Your task to perform on an android device: turn off airplane mode Image 0: 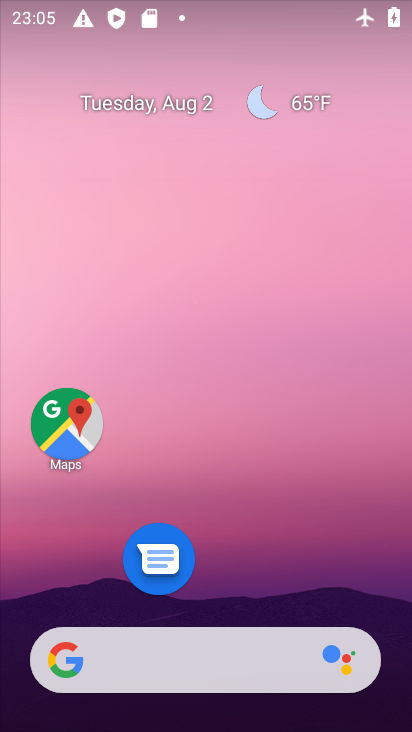
Step 0: drag from (204, 671) to (199, 326)
Your task to perform on an android device: turn off airplane mode Image 1: 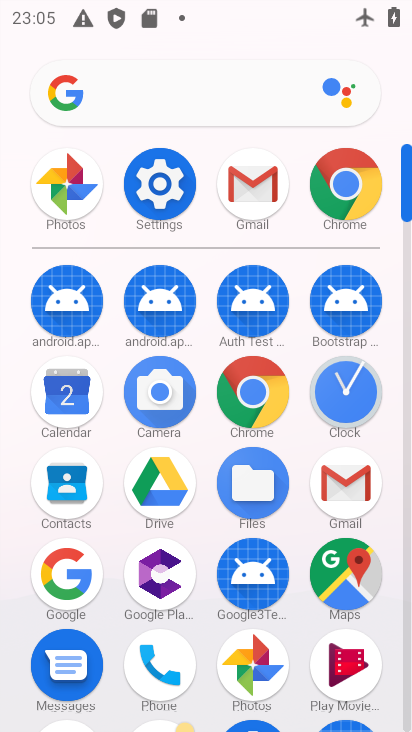
Step 1: click (171, 199)
Your task to perform on an android device: turn off airplane mode Image 2: 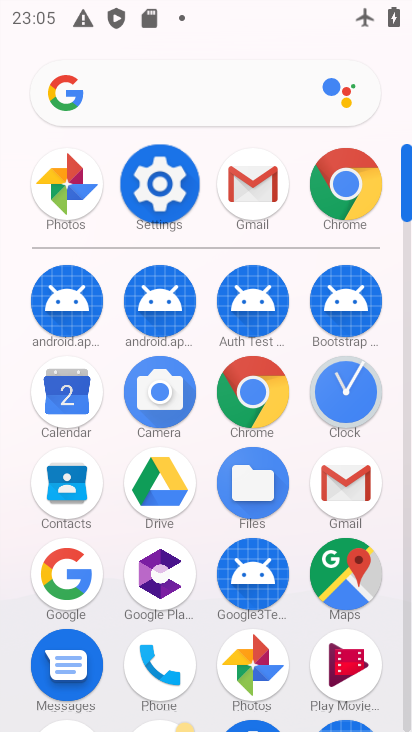
Step 2: click (171, 199)
Your task to perform on an android device: turn off airplane mode Image 3: 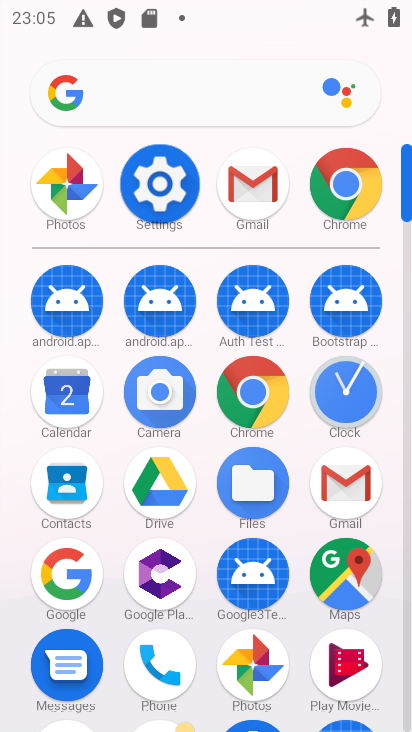
Step 3: click (171, 199)
Your task to perform on an android device: turn off airplane mode Image 4: 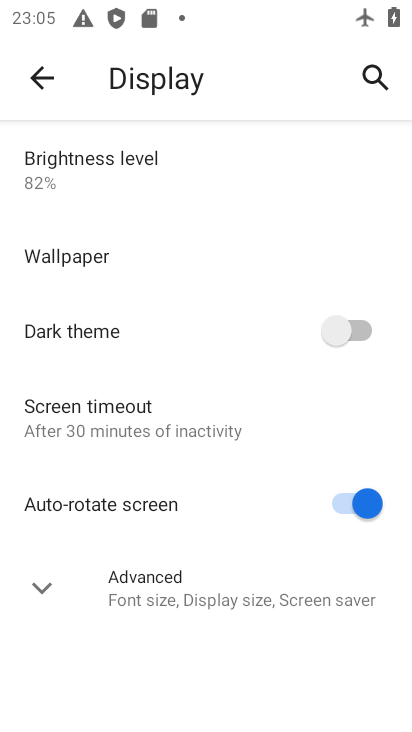
Step 4: click (24, 77)
Your task to perform on an android device: turn off airplane mode Image 5: 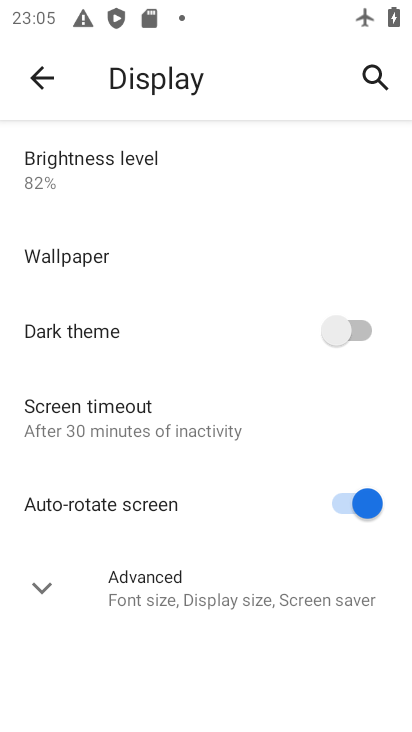
Step 5: click (27, 78)
Your task to perform on an android device: turn off airplane mode Image 6: 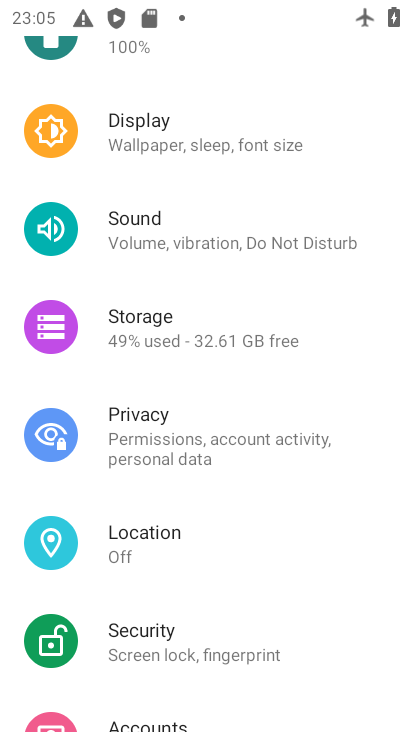
Step 6: drag from (149, 364) to (185, 587)
Your task to perform on an android device: turn off airplane mode Image 7: 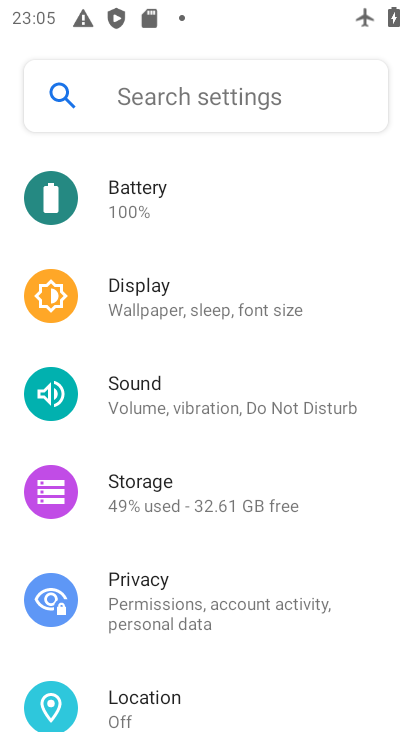
Step 7: drag from (156, 281) to (135, 622)
Your task to perform on an android device: turn off airplane mode Image 8: 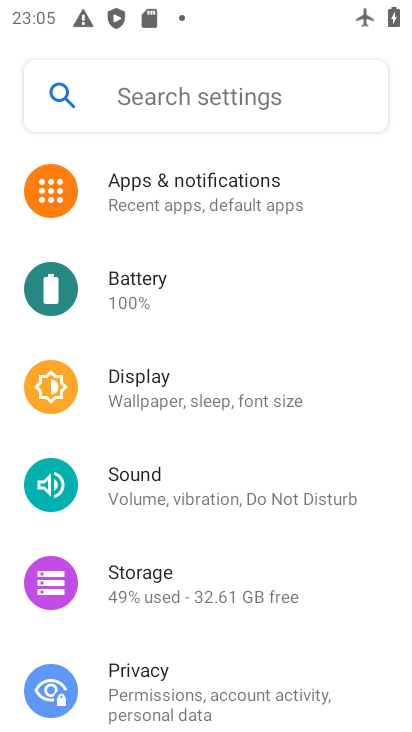
Step 8: drag from (106, 192) to (182, 497)
Your task to perform on an android device: turn off airplane mode Image 9: 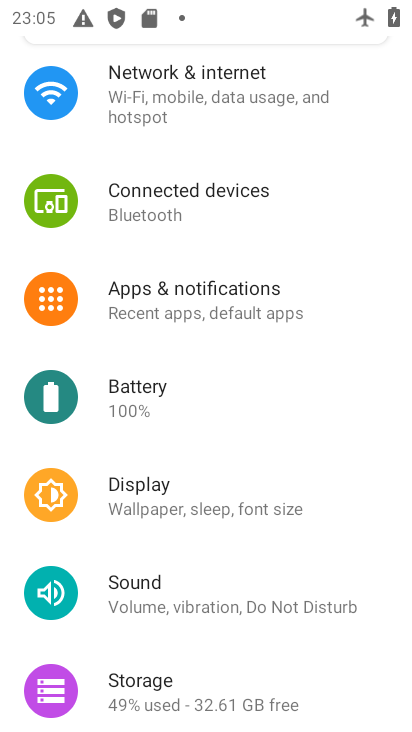
Step 9: click (156, 100)
Your task to perform on an android device: turn off airplane mode Image 10: 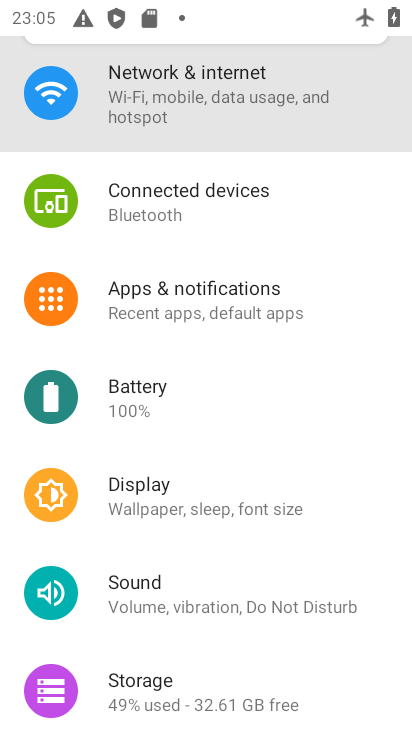
Step 10: click (159, 99)
Your task to perform on an android device: turn off airplane mode Image 11: 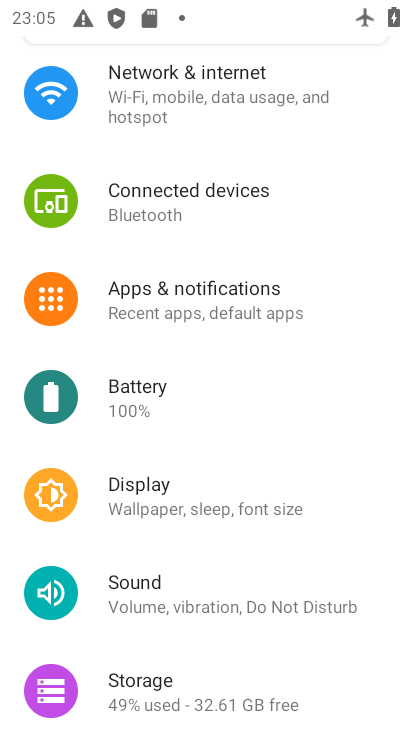
Step 11: click (155, 106)
Your task to perform on an android device: turn off airplane mode Image 12: 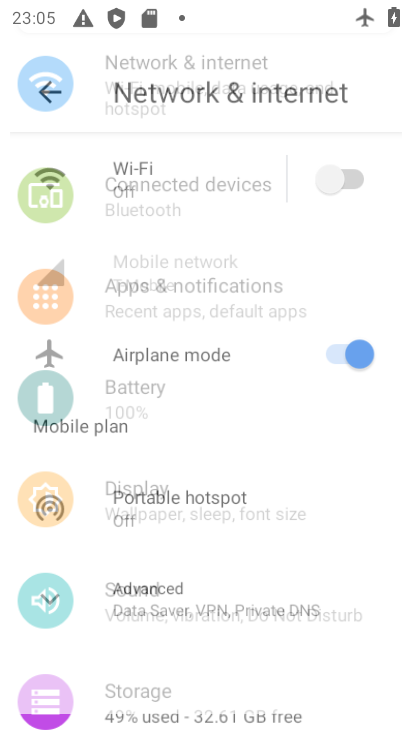
Step 12: click (158, 109)
Your task to perform on an android device: turn off airplane mode Image 13: 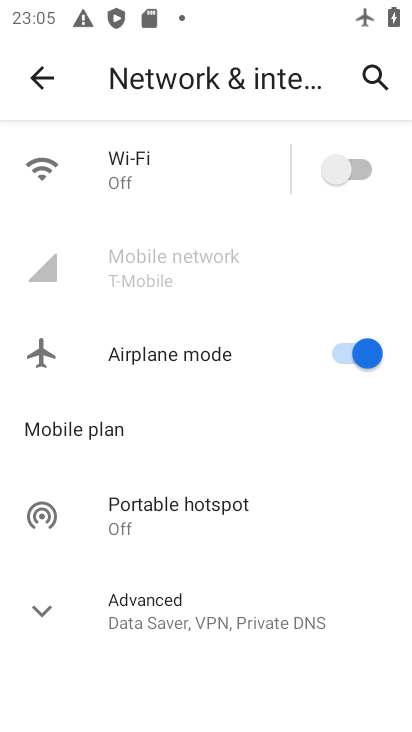
Step 13: click (353, 346)
Your task to perform on an android device: turn off airplane mode Image 14: 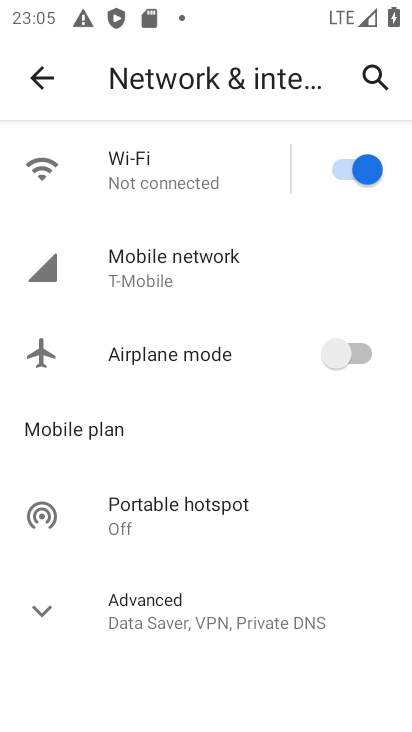
Step 14: task complete